Your task to perform on an android device: change alarm snooze length Image 0: 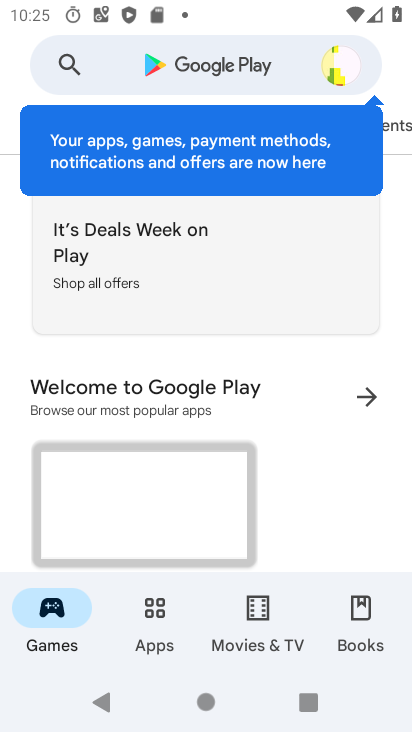
Step 0: press home button
Your task to perform on an android device: change alarm snooze length Image 1: 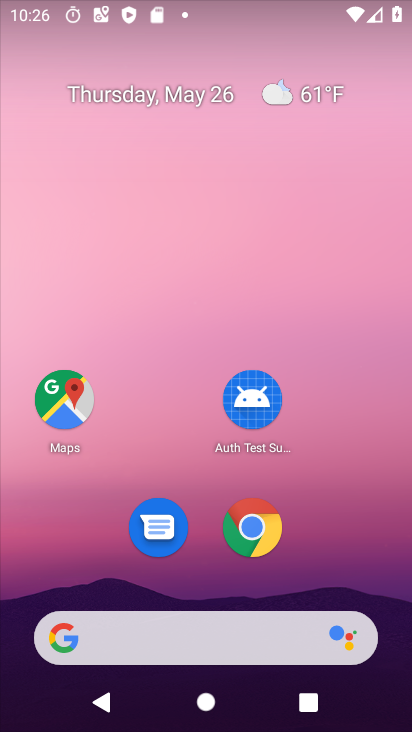
Step 1: drag from (366, 479) to (0, 251)
Your task to perform on an android device: change alarm snooze length Image 2: 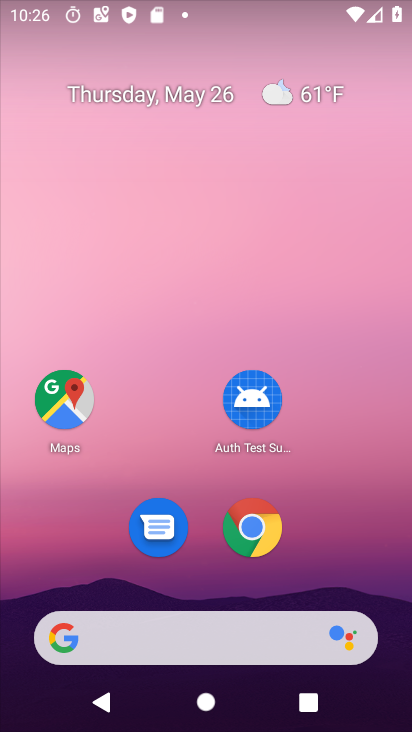
Step 2: drag from (364, 561) to (372, 0)
Your task to perform on an android device: change alarm snooze length Image 3: 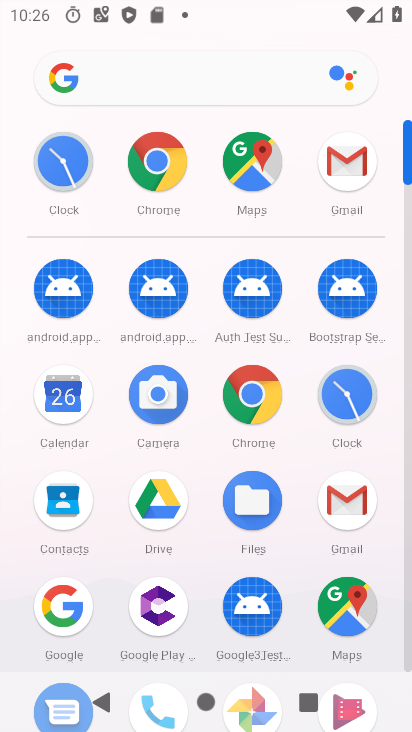
Step 3: click (56, 165)
Your task to perform on an android device: change alarm snooze length Image 4: 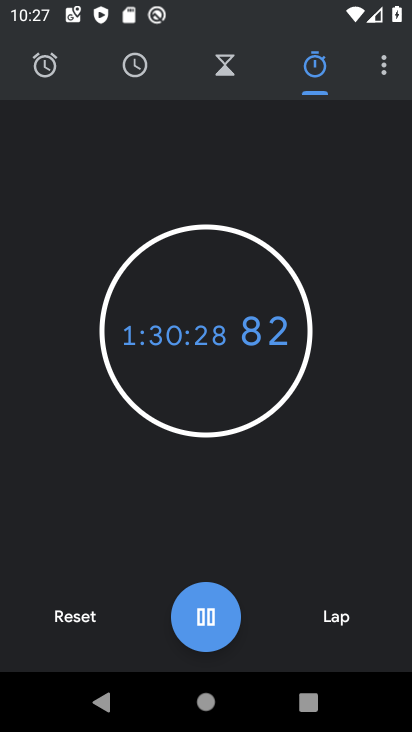
Step 4: click (377, 67)
Your task to perform on an android device: change alarm snooze length Image 5: 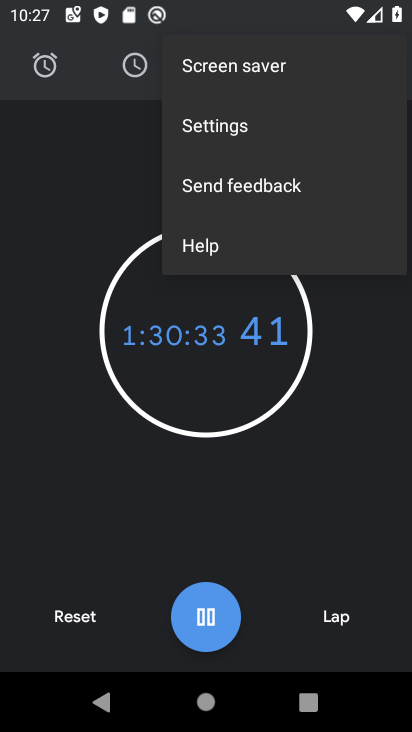
Step 5: click (231, 142)
Your task to perform on an android device: change alarm snooze length Image 6: 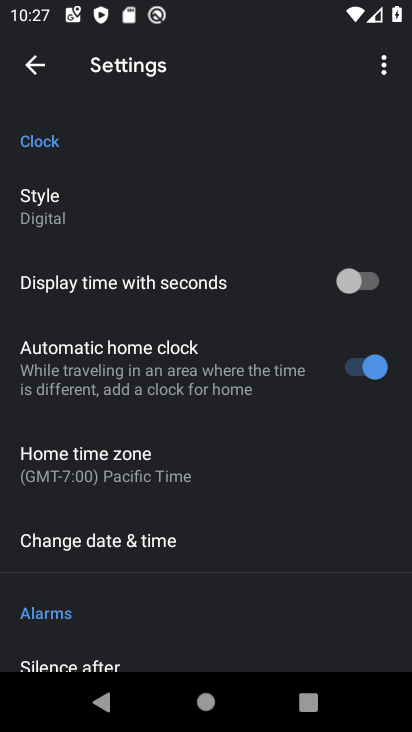
Step 6: drag from (109, 575) to (72, 142)
Your task to perform on an android device: change alarm snooze length Image 7: 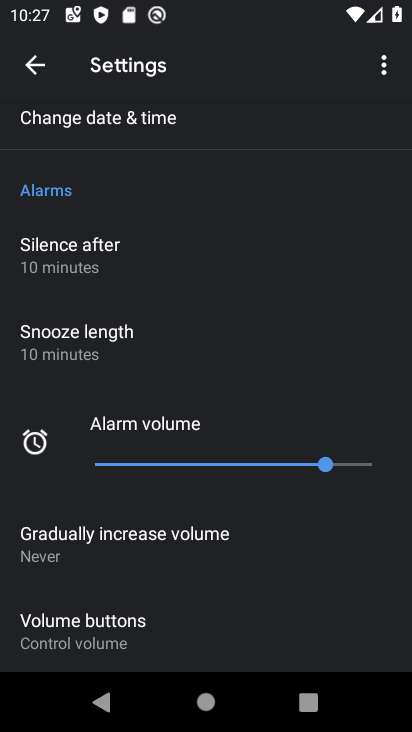
Step 7: click (67, 345)
Your task to perform on an android device: change alarm snooze length Image 8: 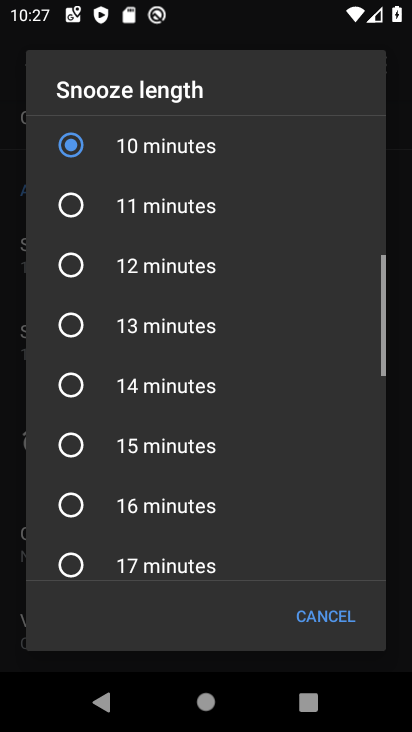
Step 8: click (88, 339)
Your task to perform on an android device: change alarm snooze length Image 9: 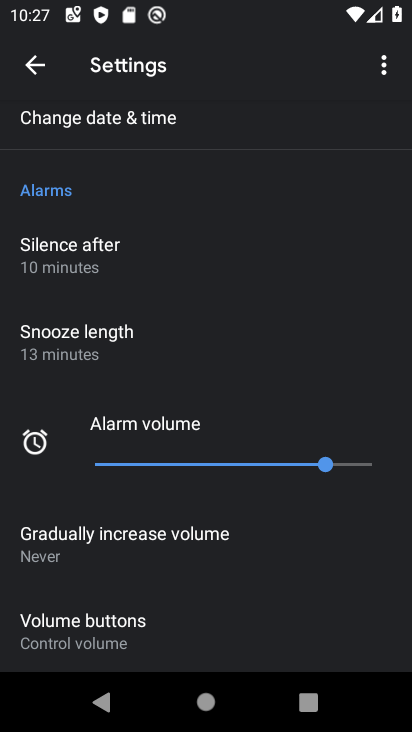
Step 9: task complete